Your task to perform on an android device: Open Android settings Image 0: 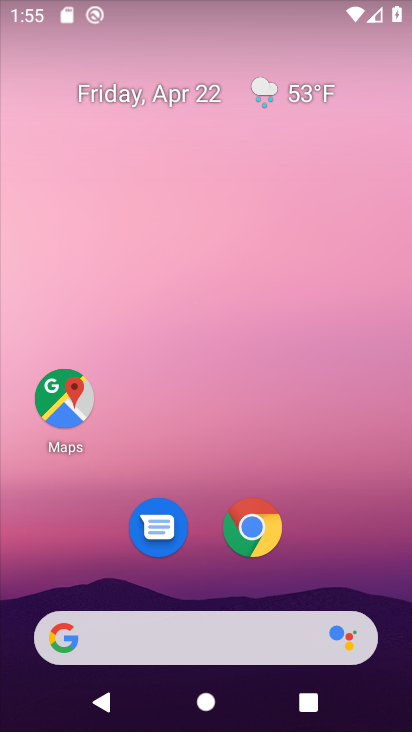
Step 0: drag from (356, 3) to (285, 723)
Your task to perform on an android device: Open Android settings Image 1: 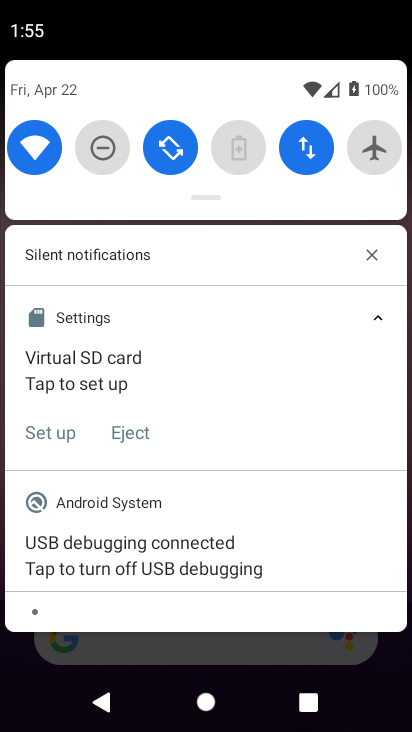
Step 1: drag from (268, 252) to (278, 694)
Your task to perform on an android device: Open Android settings Image 2: 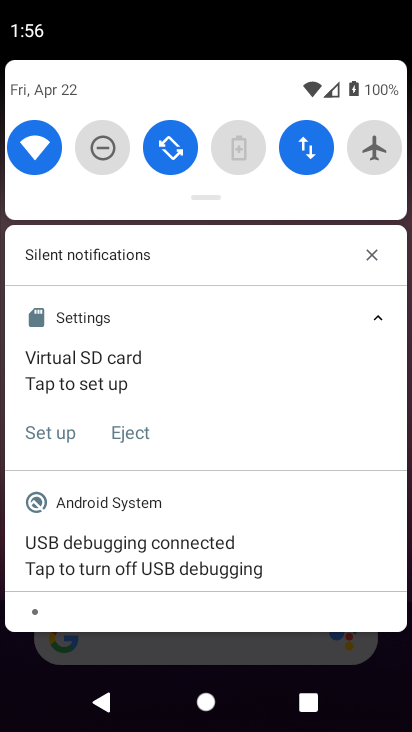
Step 2: click (374, 532)
Your task to perform on an android device: Open Android settings Image 3: 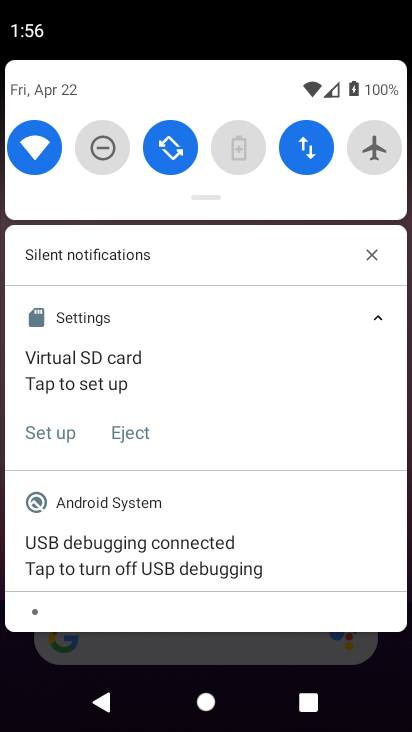
Step 3: drag from (368, 194) to (331, 672)
Your task to perform on an android device: Open Android settings Image 4: 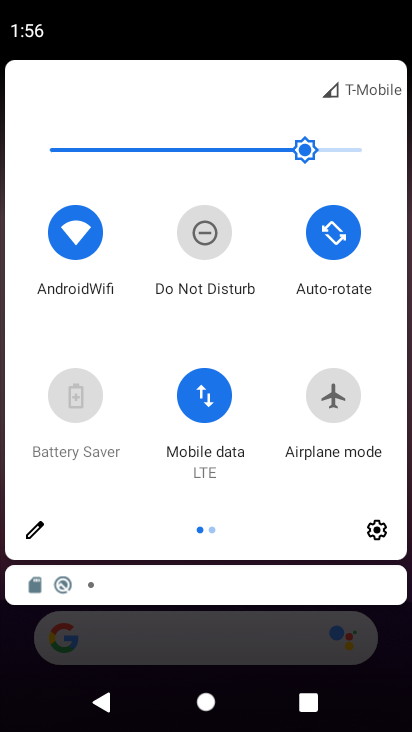
Step 4: click (380, 531)
Your task to perform on an android device: Open Android settings Image 5: 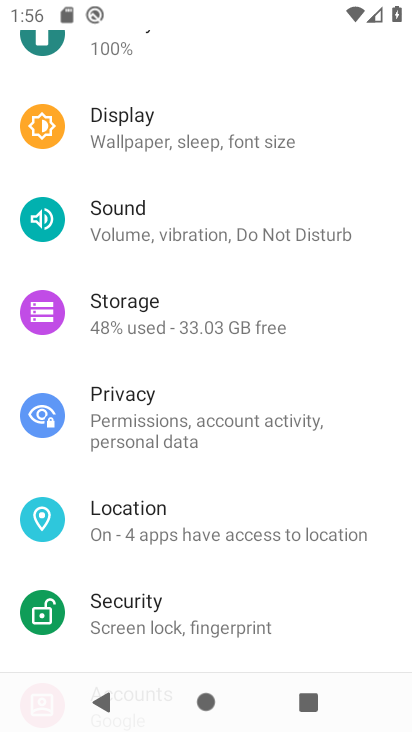
Step 5: task complete